Your task to perform on an android device: turn off sleep mode Image 0: 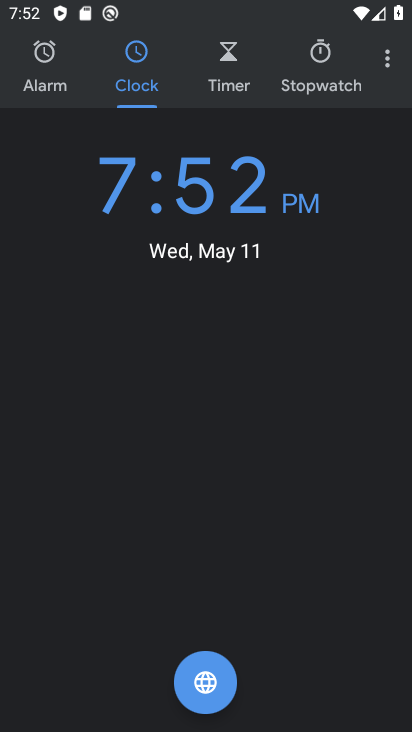
Step 0: press home button
Your task to perform on an android device: turn off sleep mode Image 1: 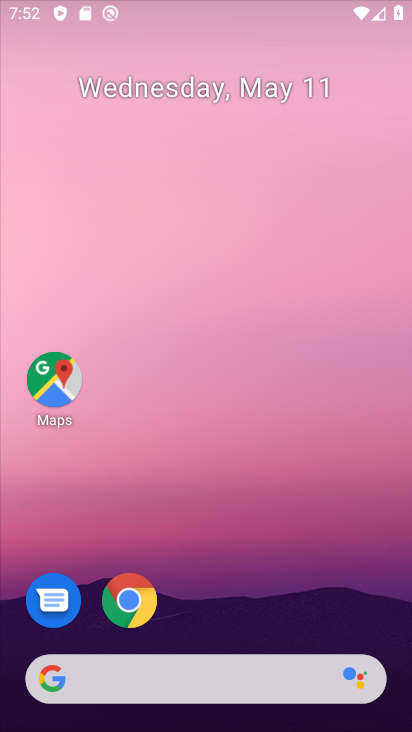
Step 1: drag from (245, 640) to (263, 235)
Your task to perform on an android device: turn off sleep mode Image 2: 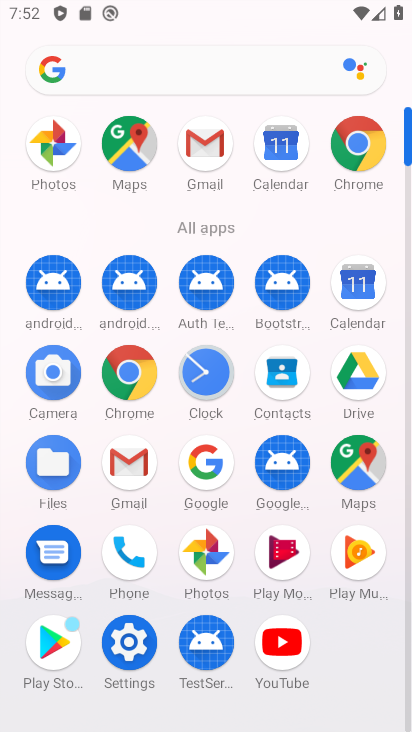
Step 2: click (124, 637)
Your task to perform on an android device: turn off sleep mode Image 3: 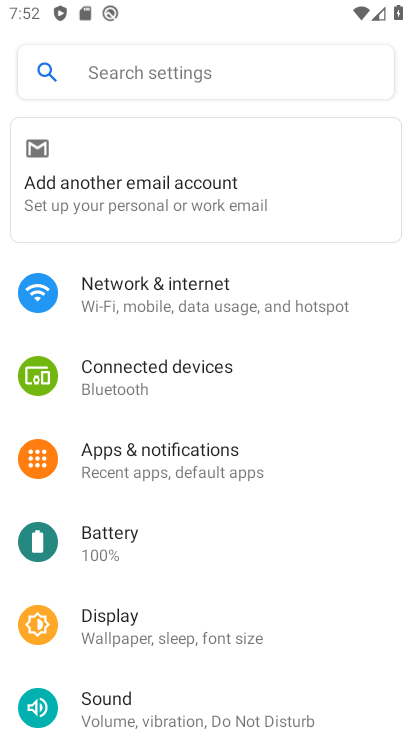
Step 3: click (264, 635)
Your task to perform on an android device: turn off sleep mode Image 4: 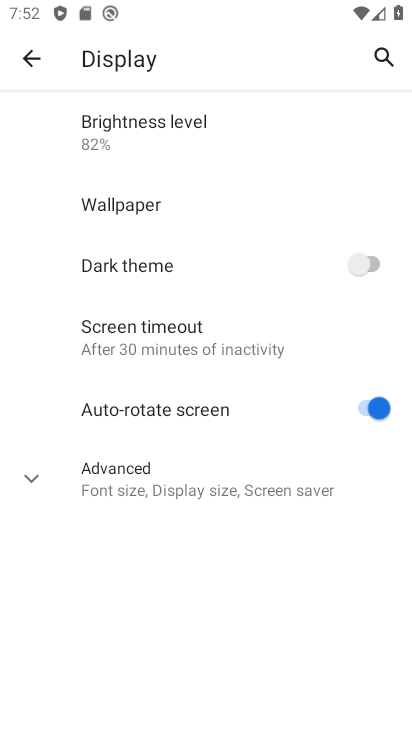
Step 4: click (219, 342)
Your task to perform on an android device: turn off sleep mode Image 5: 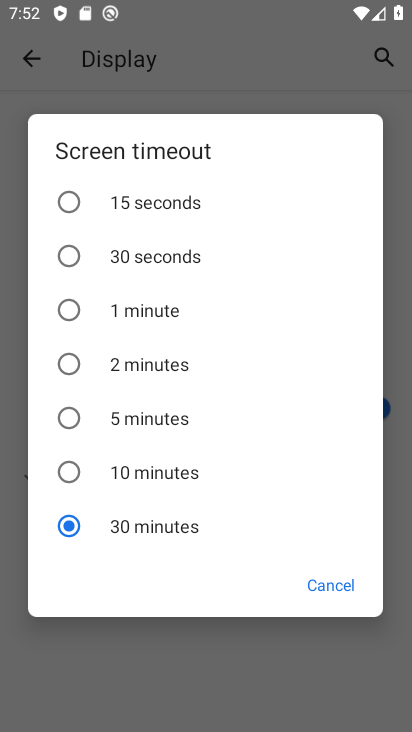
Step 5: task complete